Your task to perform on an android device: Open Google Maps Image 0: 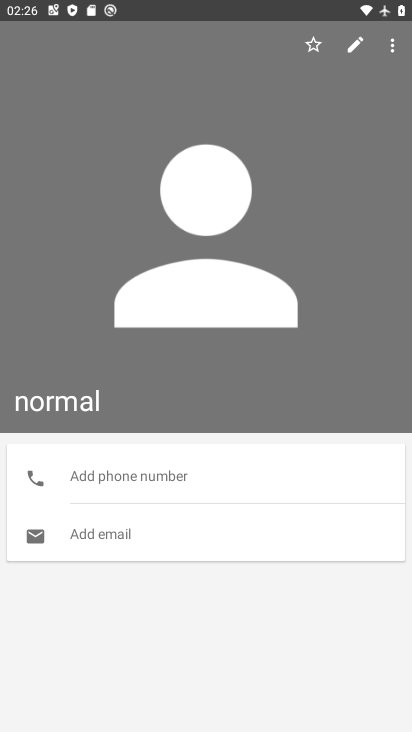
Step 0: press home button
Your task to perform on an android device: Open Google Maps Image 1: 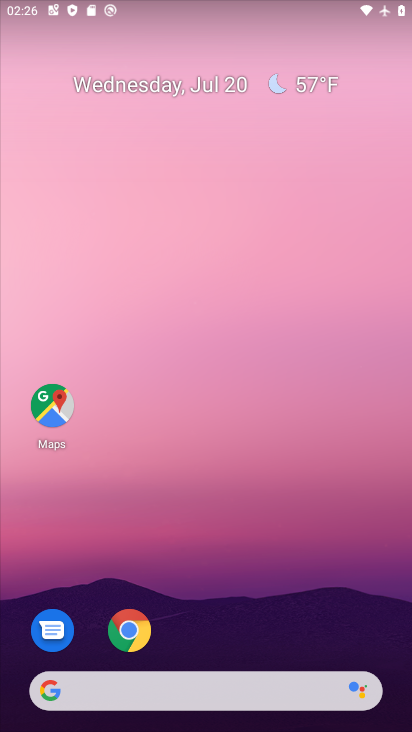
Step 1: drag from (302, 595) to (213, 55)
Your task to perform on an android device: Open Google Maps Image 2: 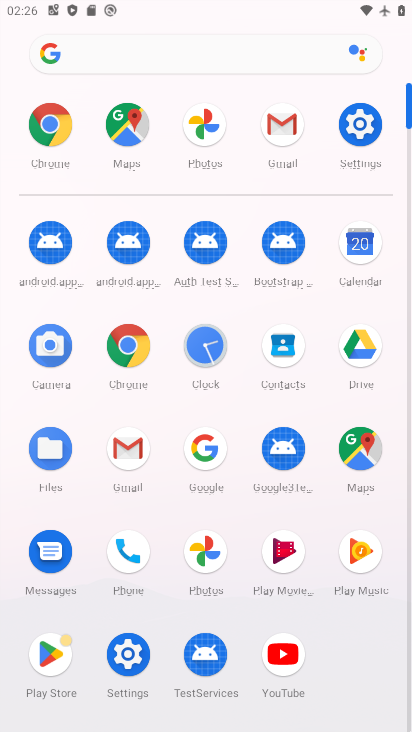
Step 2: click (137, 130)
Your task to perform on an android device: Open Google Maps Image 3: 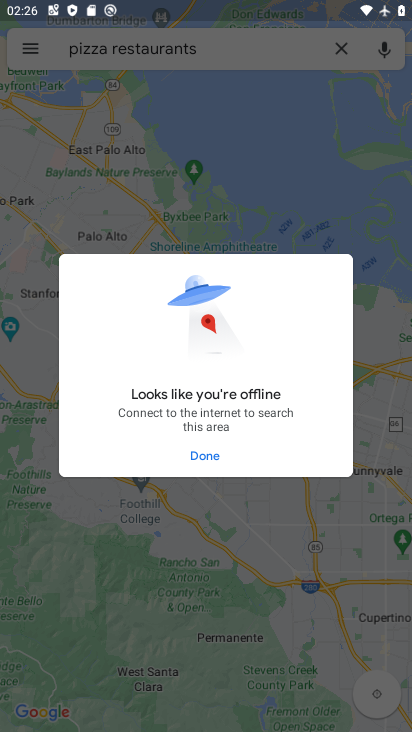
Step 3: task complete